Your task to perform on an android device: What is the recent news? Image 0: 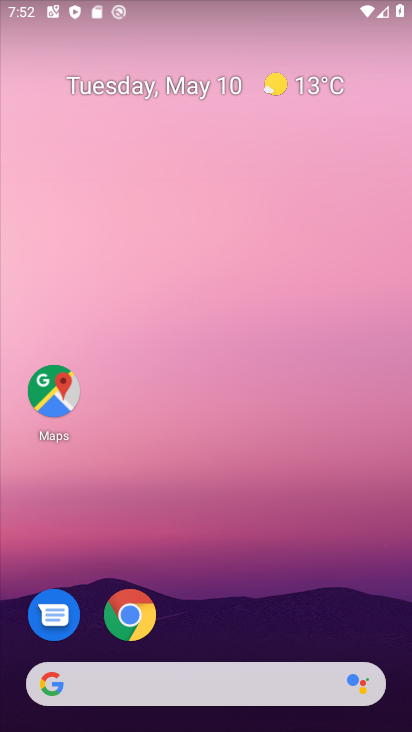
Step 0: drag from (2, 242) to (408, 240)
Your task to perform on an android device: What is the recent news? Image 1: 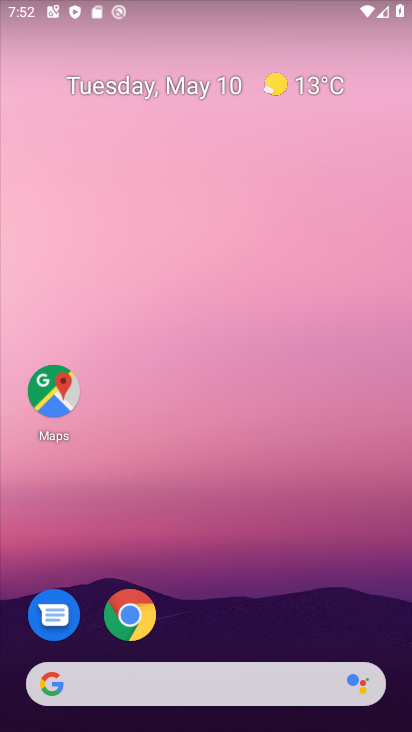
Step 1: task complete